Your task to perform on an android device: Go to internet settings Image 0: 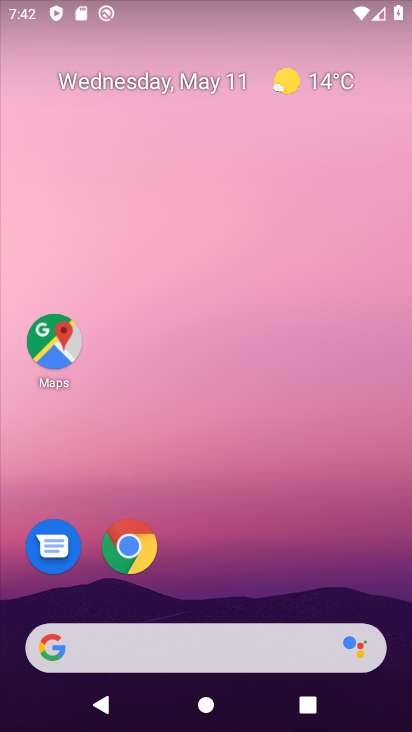
Step 0: drag from (304, 427) to (347, 160)
Your task to perform on an android device: Go to internet settings Image 1: 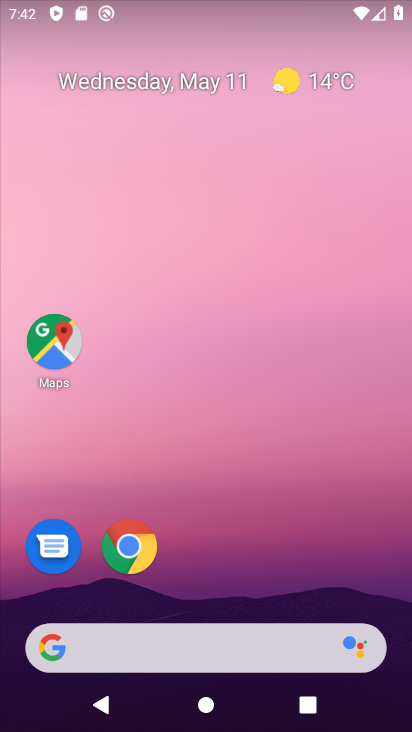
Step 1: drag from (265, 444) to (266, 118)
Your task to perform on an android device: Go to internet settings Image 2: 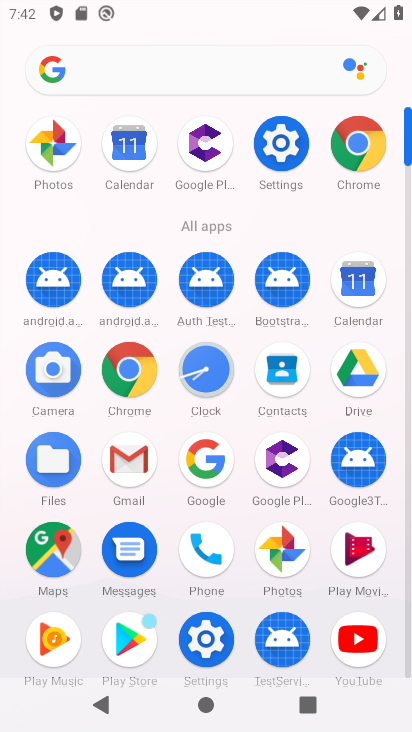
Step 2: click (268, 123)
Your task to perform on an android device: Go to internet settings Image 3: 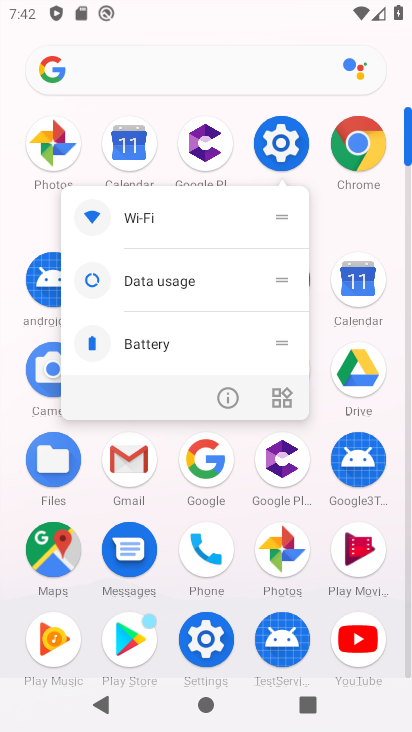
Step 3: click (274, 138)
Your task to perform on an android device: Go to internet settings Image 4: 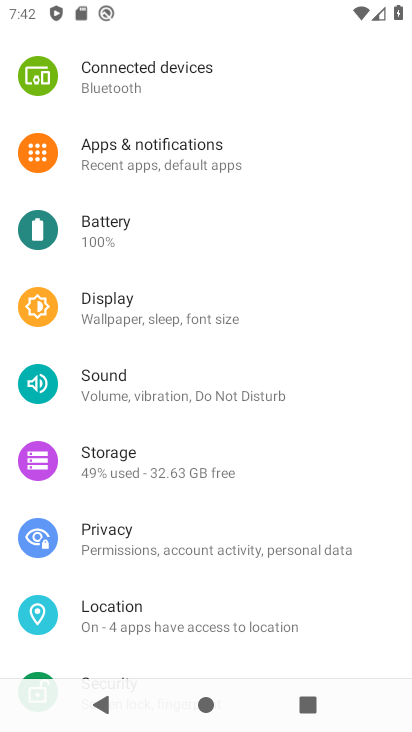
Step 4: drag from (186, 102) to (109, 526)
Your task to perform on an android device: Go to internet settings Image 5: 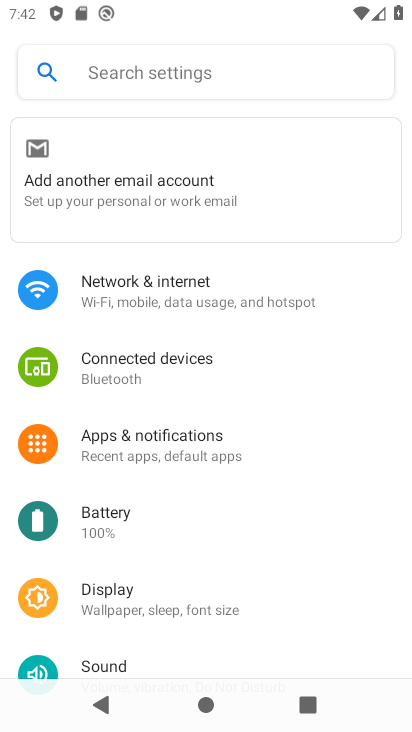
Step 5: click (150, 285)
Your task to perform on an android device: Go to internet settings Image 6: 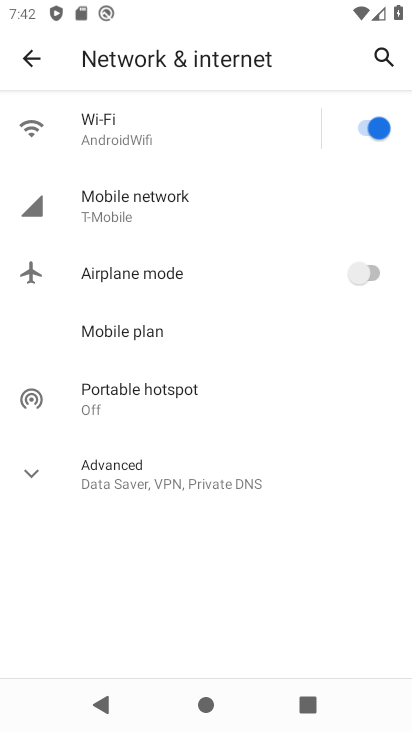
Step 6: task complete